Your task to perform on an android device: turn on bluetooth scan Image 0: 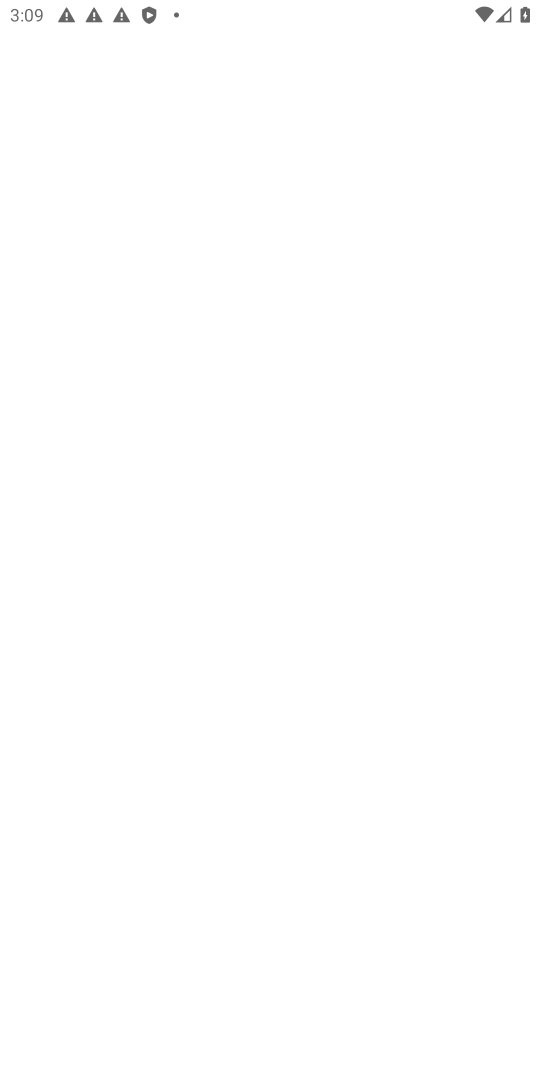
Step 0: press home button
Your task to perform on an android device: turn on bluetooth scan Image 1: 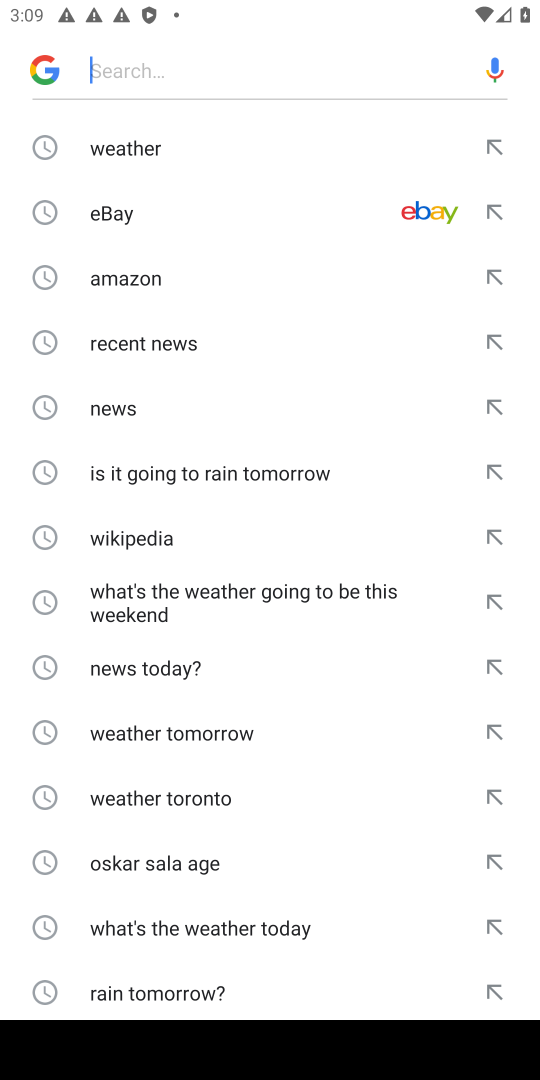
Step 1: press home button
Your task to perform on an android device: turn on bluetooth scan Image 2: 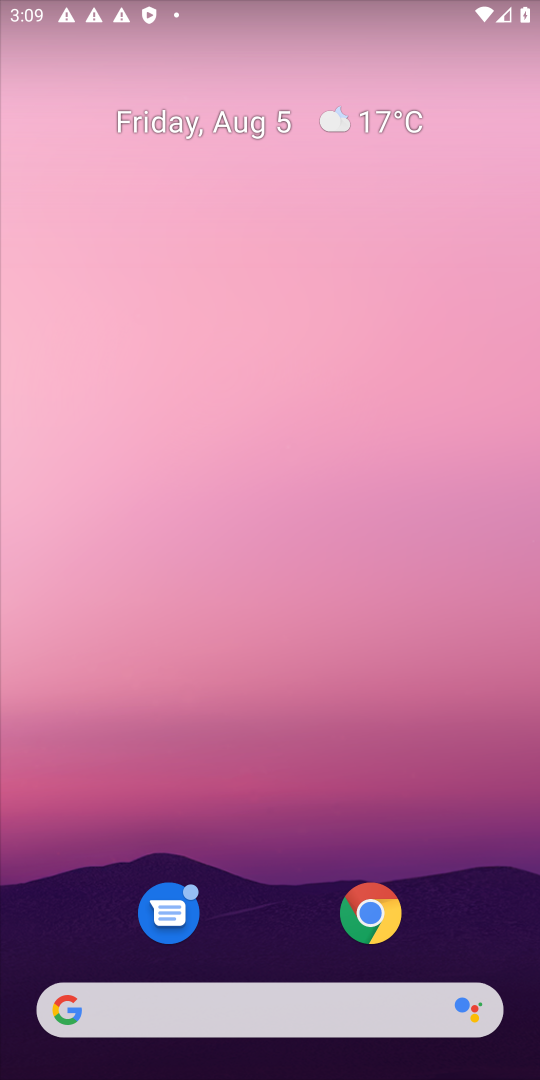
Step 2: press home button
Your task to perform on an android device: turn on bluetooth scan Image 3: 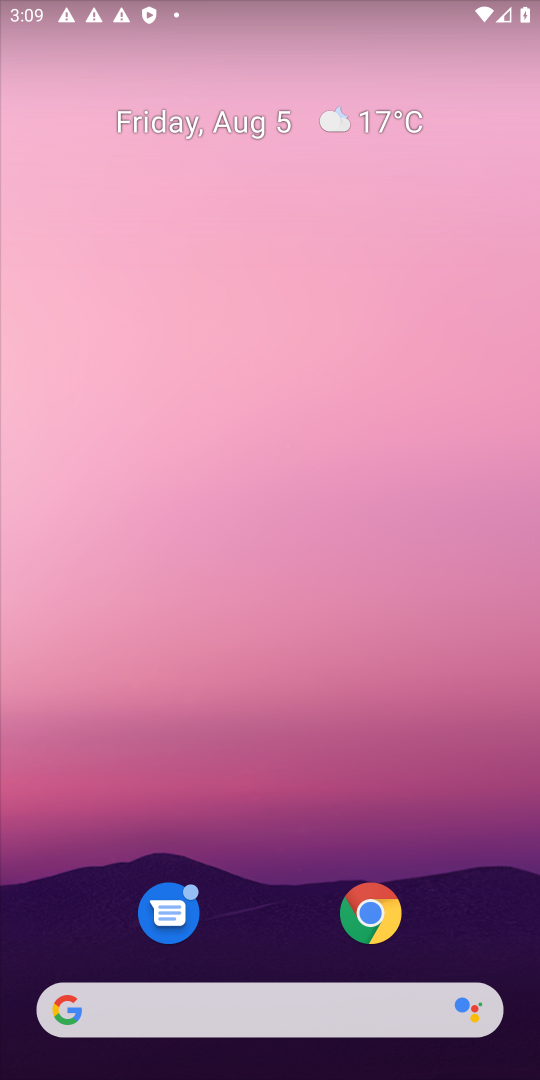
Step 3: drag from (342, 553) to (497, 78)
Your task to perform on an android device: turn on bluetooth scan Image 4: 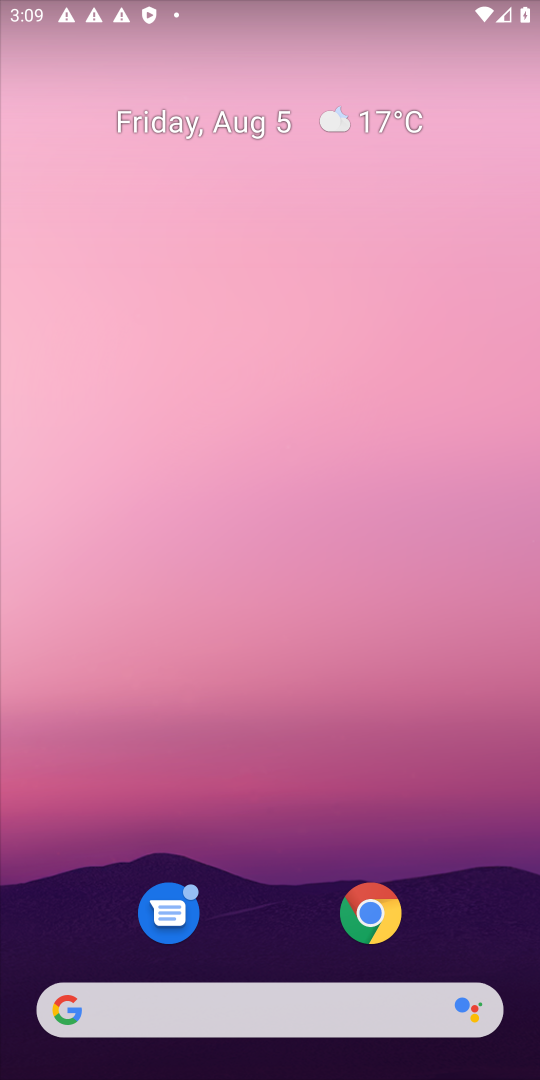
Step 4: drag from (234, 995) to (464, 70)
Your task to perform on an android device: turn on bluetooth scan Image 5: 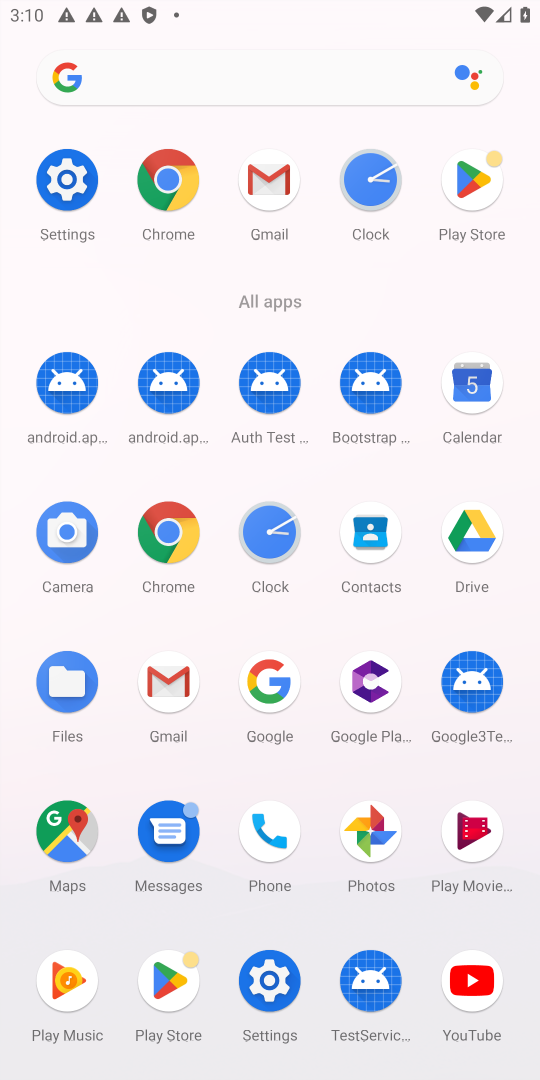
Step 5: click (75, 181)
Your task to perform on an android device: turn on bluetooth scan Image 6: 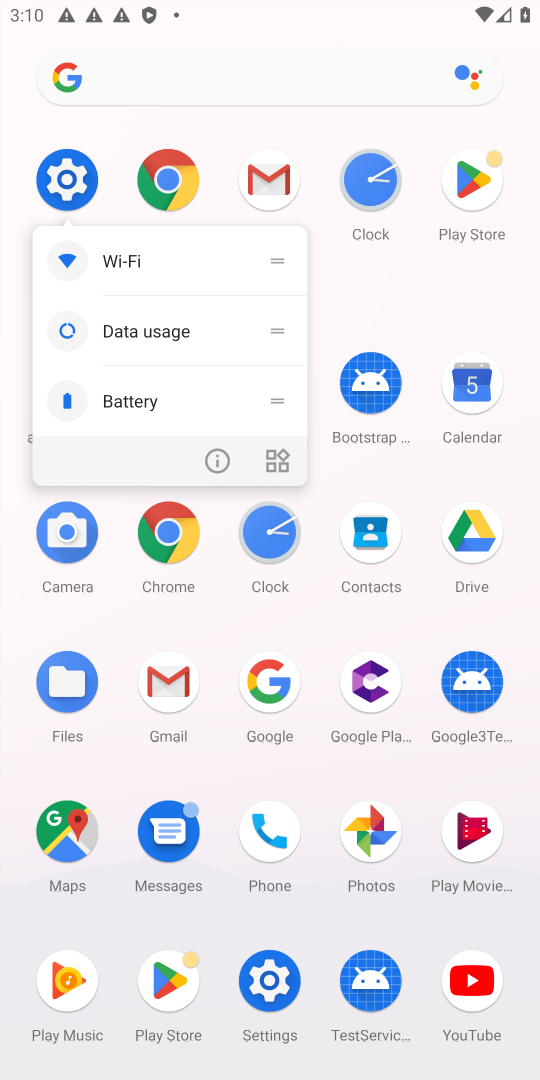
Step 6: click (65, 179)
Your task to perform on an android device: turn on bluetooth scan Image 7: 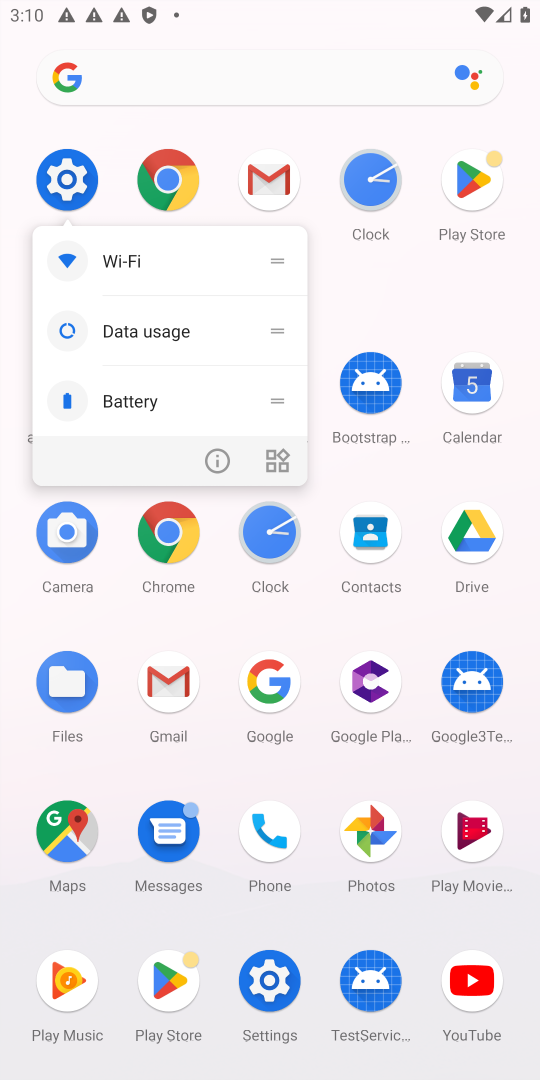
Step 7: click (65, 178)
Your task to perform on an android device: turn on bluetooth scan Image 8: 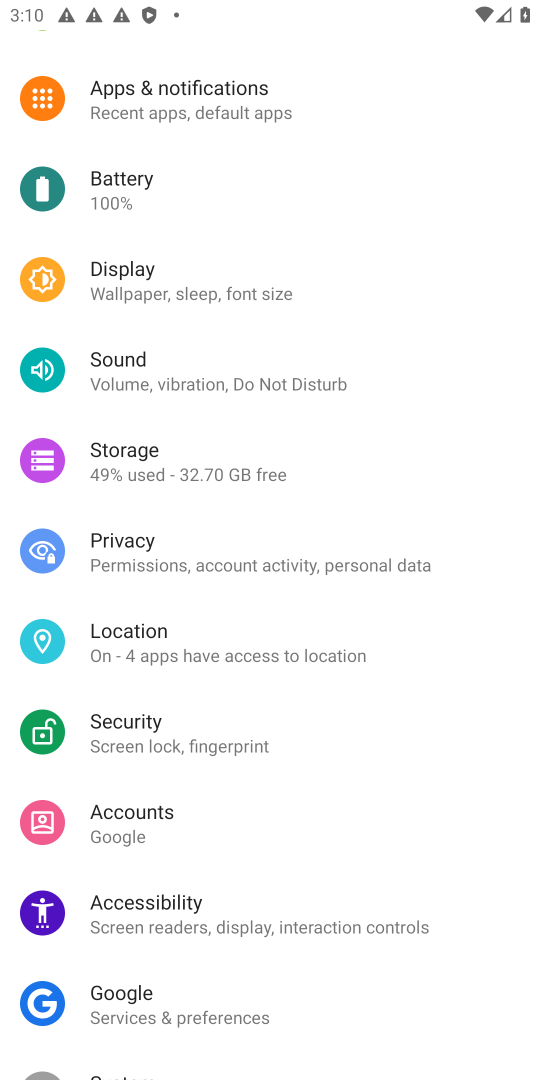
Step 8: click (160, 620)
Your task to perform on an android device: turn on bluetooth scan Image 9: 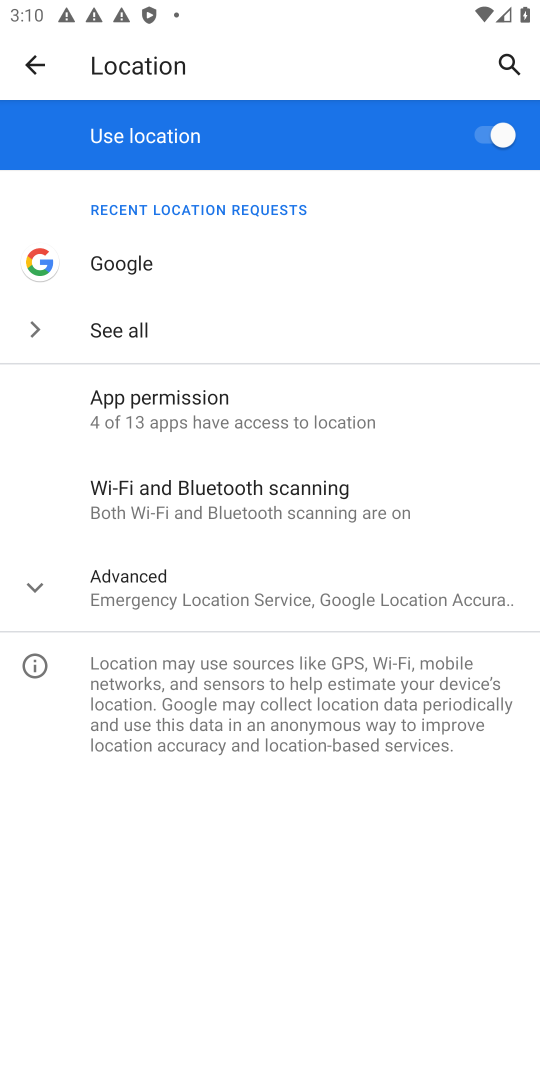
Step 9: click (154, 585)
Your task to perform on an android device: turn on bluetooth scan Image 10: 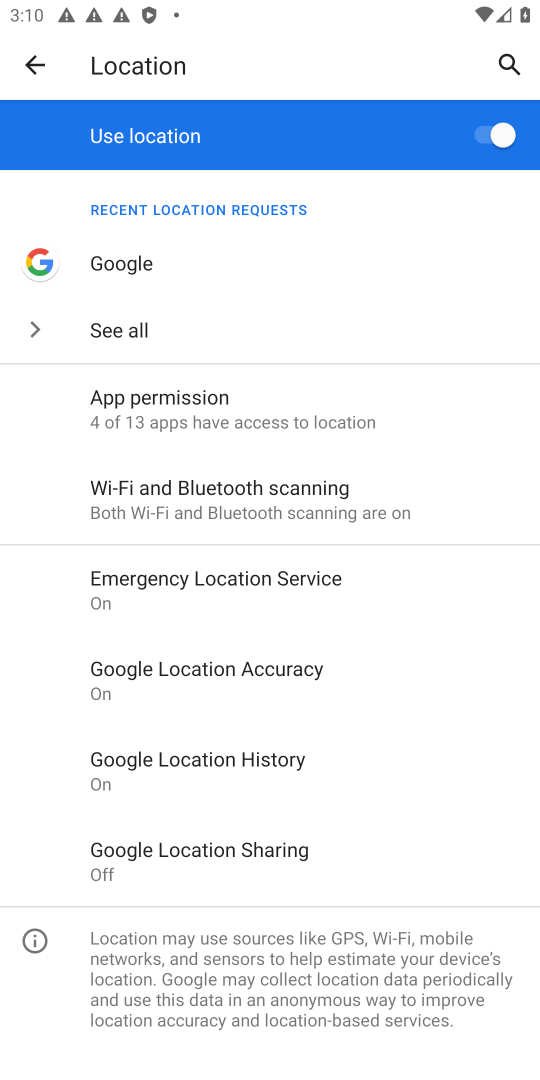
Step 10: click (251, 493)
Your task to perform on an android device: turn on bluetooth scan Image 11: 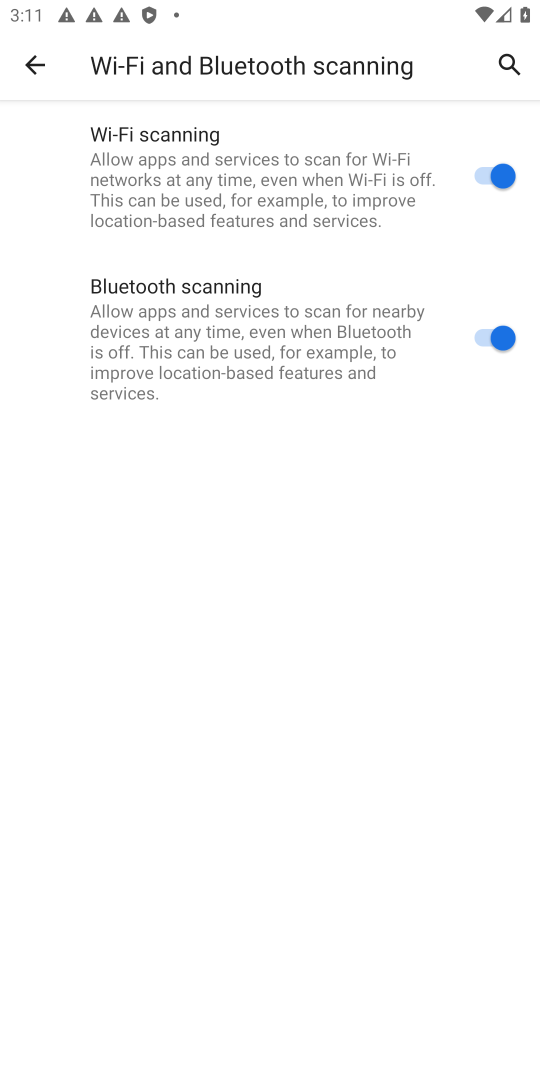
Step 11: task complete